Your task to perform on an android device: Show me popular games on the Play Store Image 0: 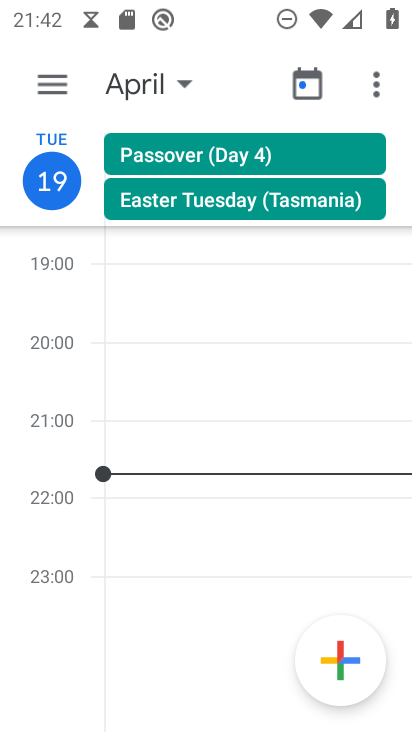
Step 0: press home button
Your task to perform on an android device: Show me popular games on the Play Store Image 1: 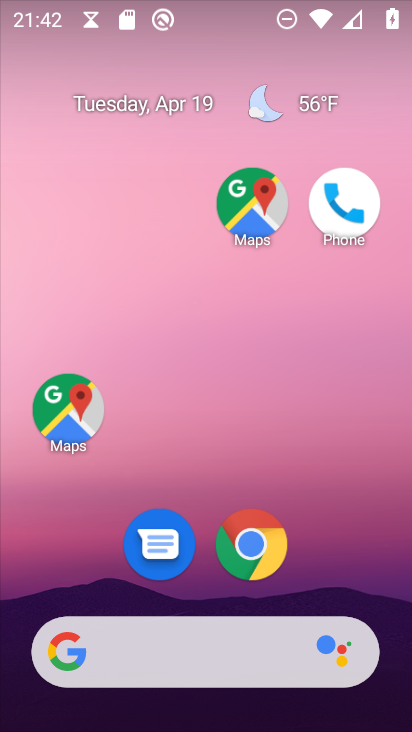
Step 1: drag from (189, 637) to (360, 71)
Your task to perform on an android device: Show me popular games on the Play Store Image 2: 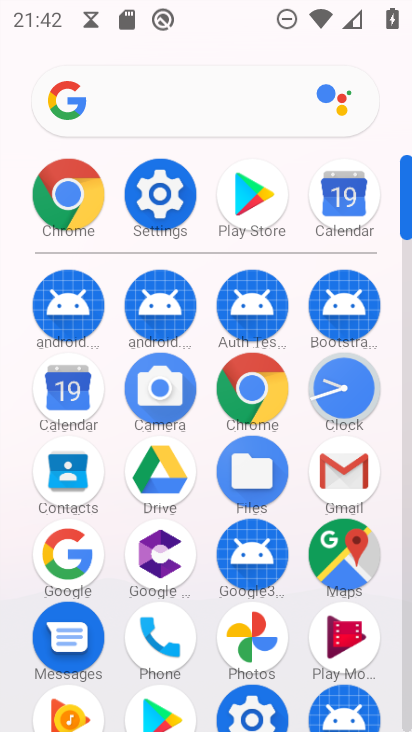
Step 2: drag from (167, 495) to (322, 211)
Your task to perform on an android device: Show me popular games on the Play Store Image 3: 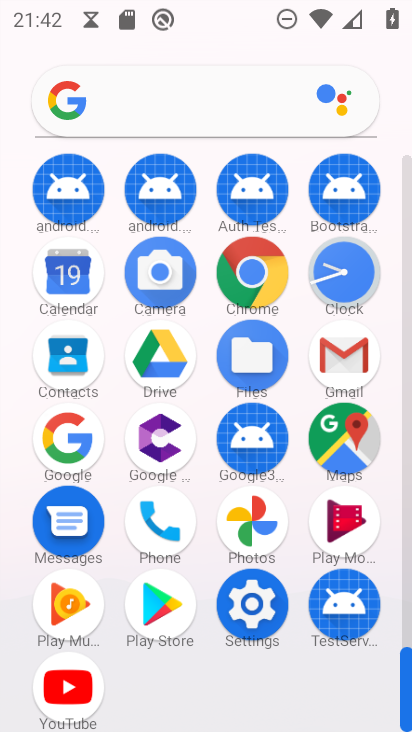
Step 3: click (162, 605)
Your task to perform on an android device: Show me popular games on the Play Store Image 4: 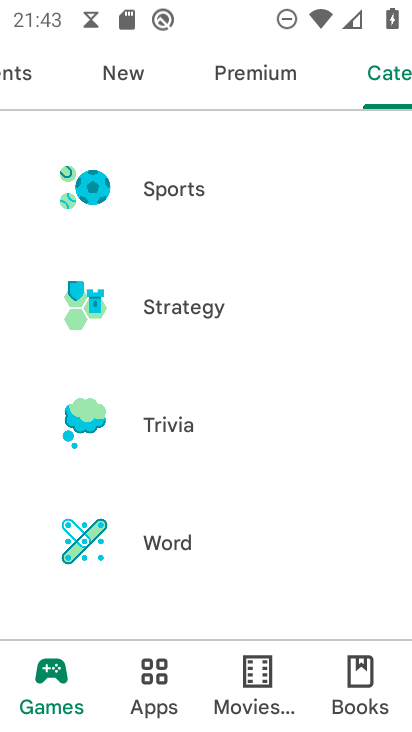
Step 4: click (44, 667)
Your task to perform on an android device: Show me popular games on the Play Store Image 5: 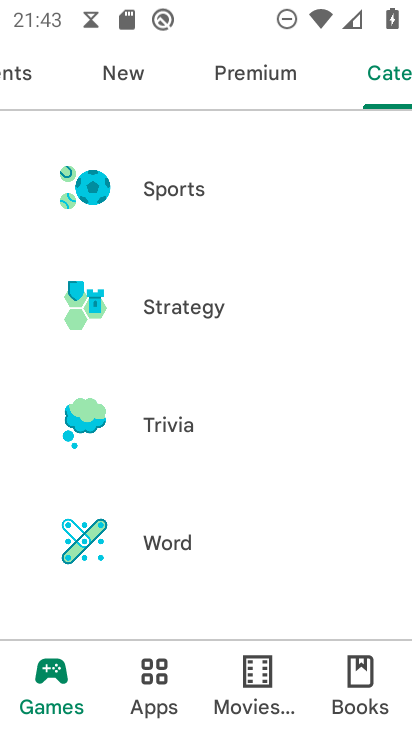
Step 5: click (55, 678)
Your task to perform on an android device: Show me popular games on the Play Store Image 6: 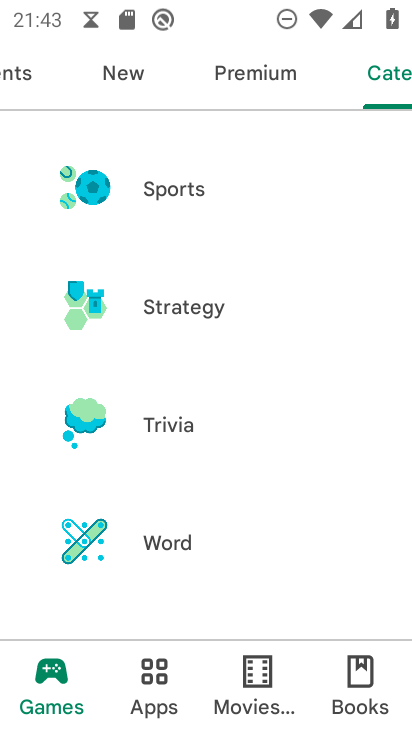
Step 6: drag from (7, 78) to (397, 64)
Your task to perform on an android device: Show me popular games on the Play Store Image 7: 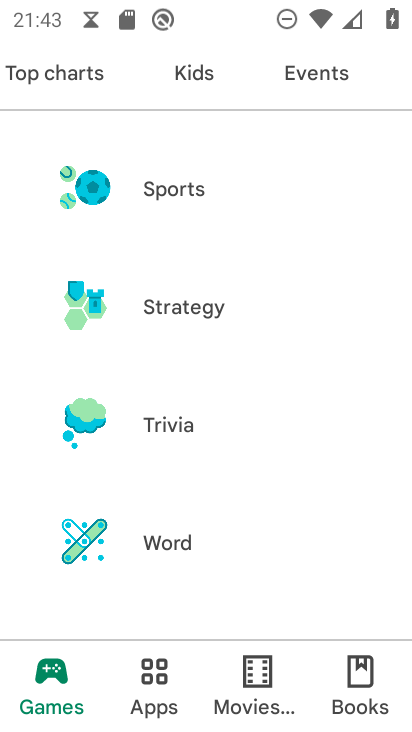
Step 7: drag from (84, 81) to (401, 90)
Your task to perform on an android device: Show me popular games on the Play Store Image 8: 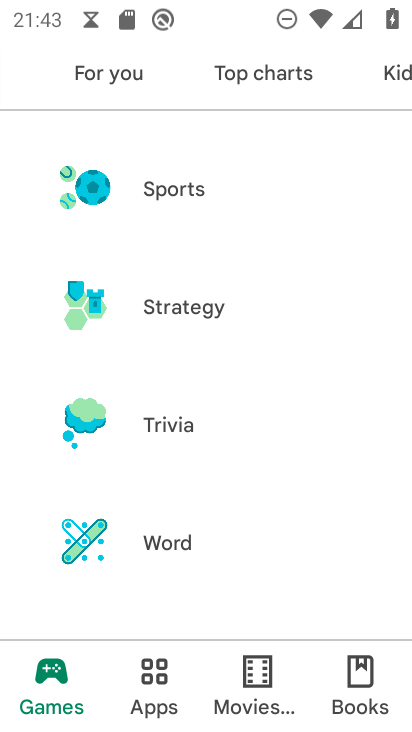
Step 8: drag from (125, 79) to (386, 85)
Your task to perform on an android device: Show me popular games on the Play Store Image 9: 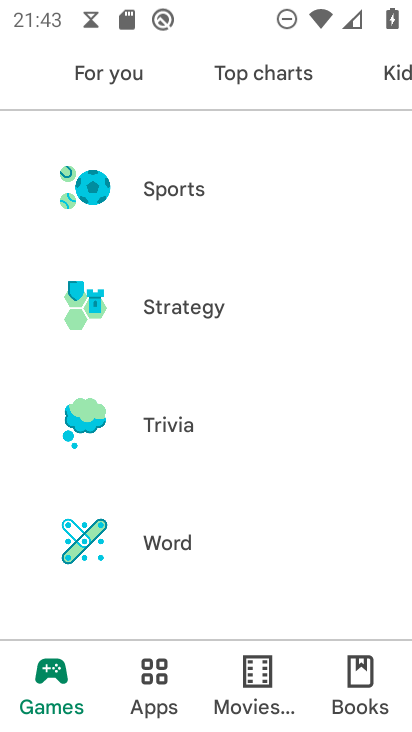
Step 9: click (105, 77)
Your task to perform on an android device: Show me popular games on the Play Store Image 10: 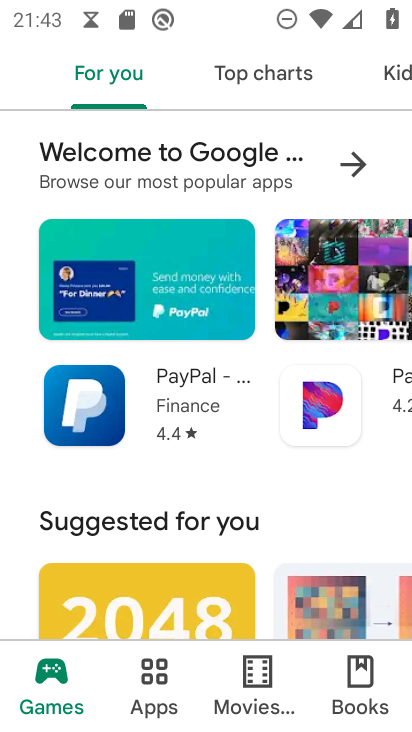
Step 10: drag from (160, 587) to (331, 27)
Your task to perform on an android device: Show me popular games on the Play Store Image 11: 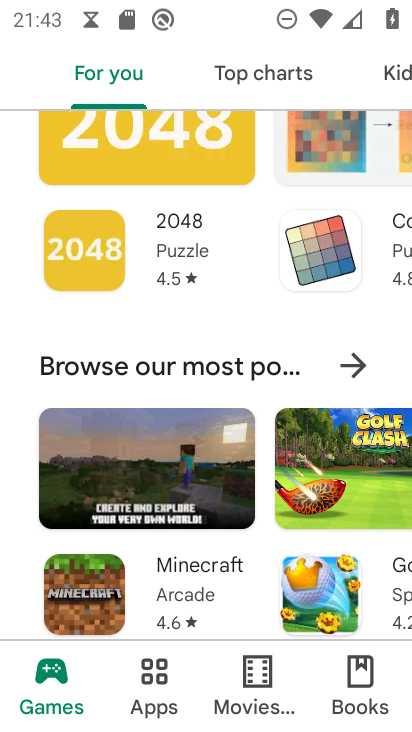
Step 11: click (355, 359)
Your task to perform on an android device: Show me popular games on the Play Store Image 12: 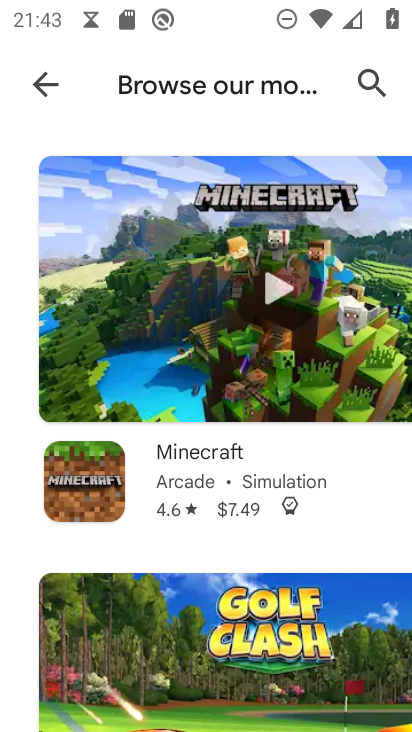
Step 12: task complete